Your task to perform on an android device: all mails in gmail Image 0: 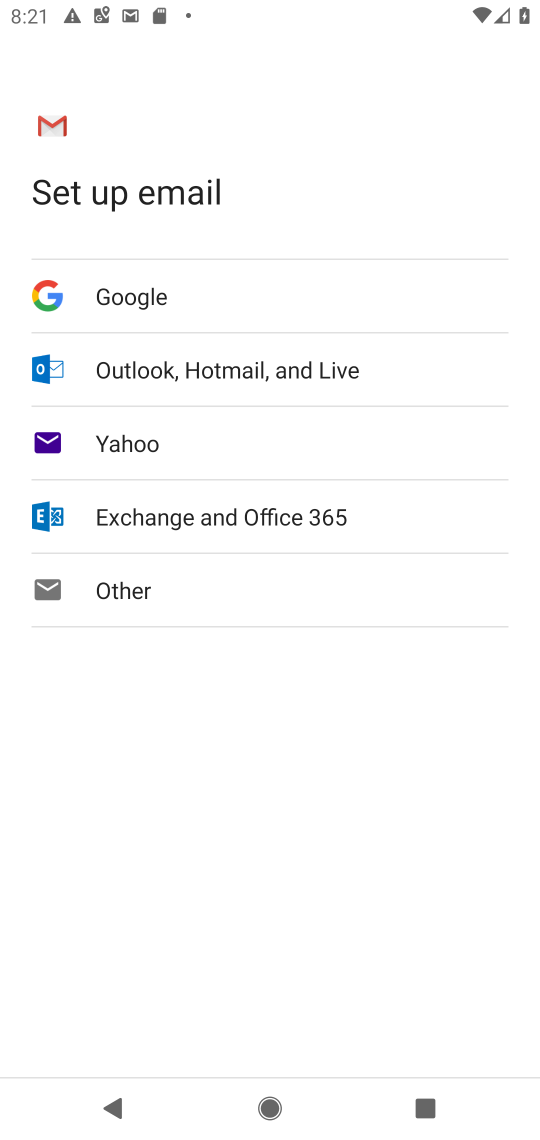
Step 0: press home button
Your task to perform on an android device: all mails in gmail Image 1: 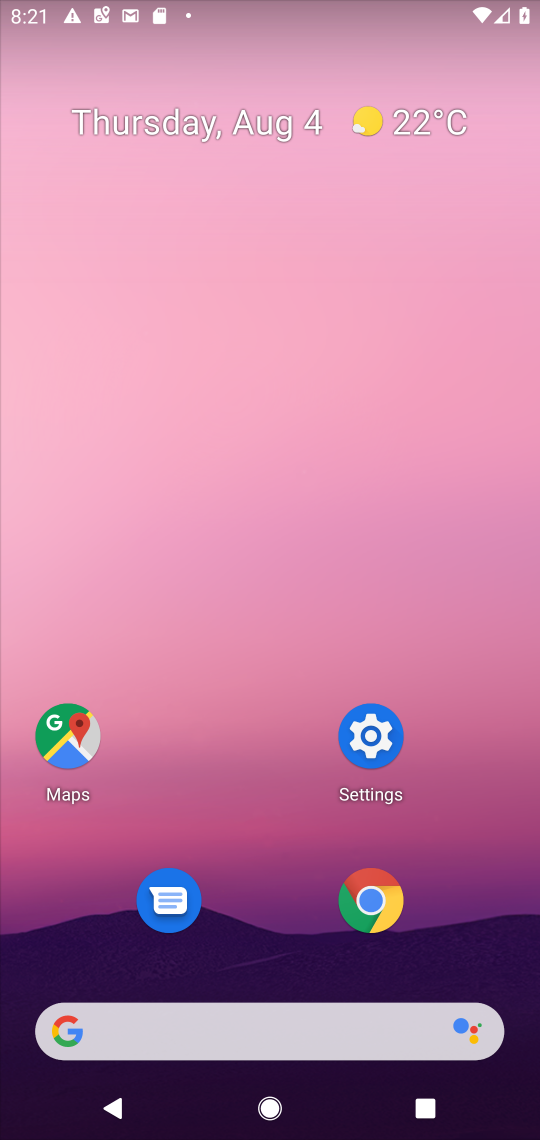
Step 1: drag from (266, 1037) to (478, 168)
Your task to perform on an android device: all mails in gmail Image 2: 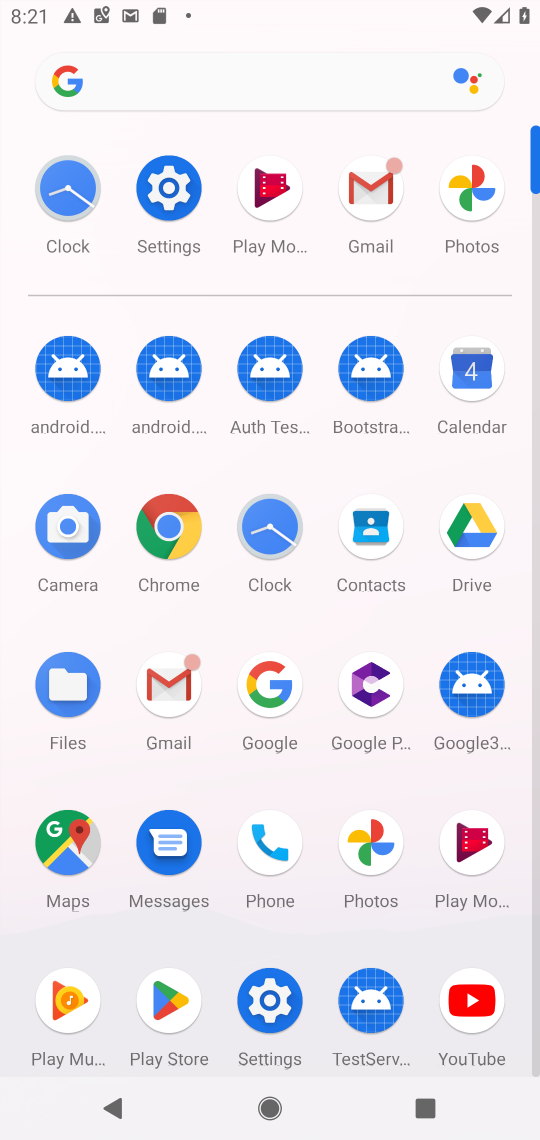
Step 2: click (375, 196)
Your task to perform on an android device: all mails in gmail Image 3: 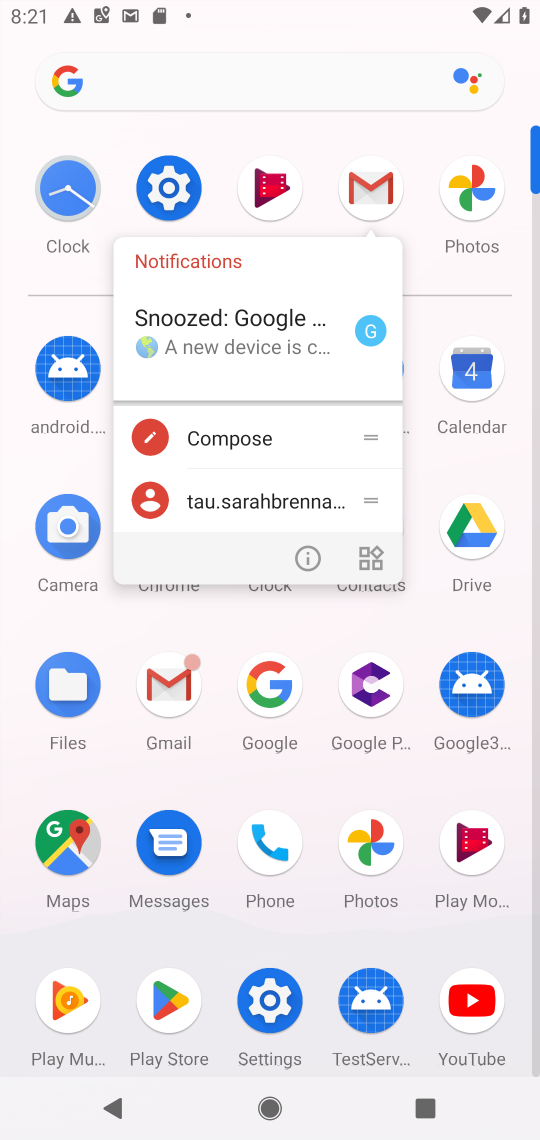
Step 3: click (371, 188)
Your task to perform on an android device: all mails in gmail Image 4: 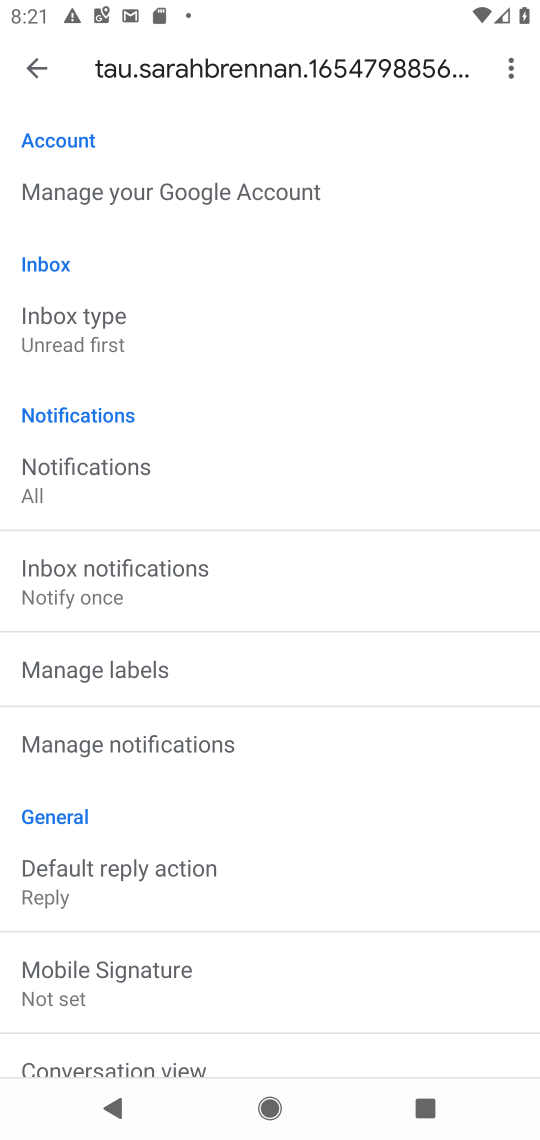
Step 4: click (26, 63)
Your task to perform on an android device: all mails in gmail Image 5: 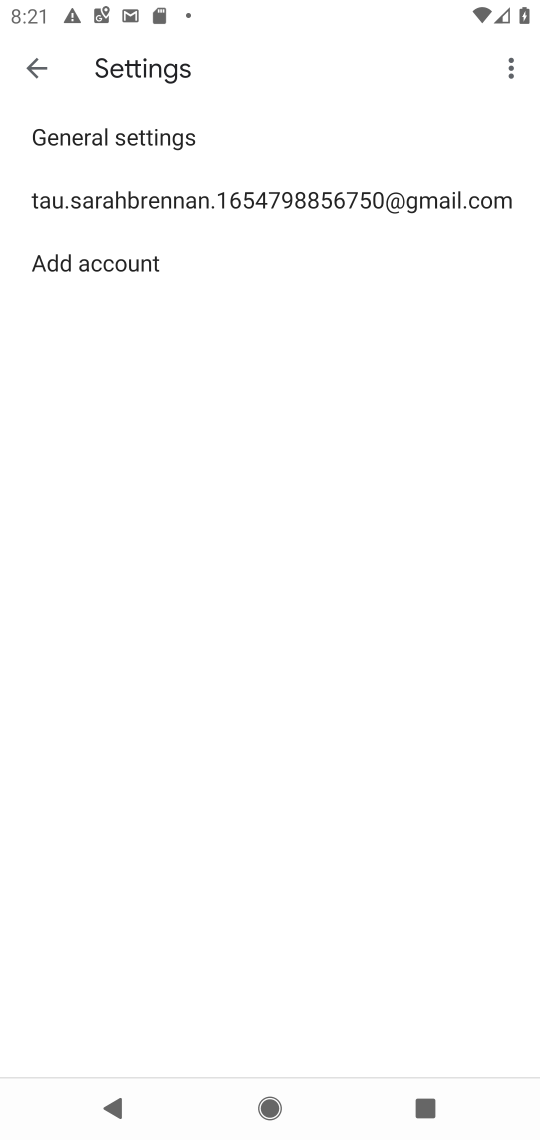
Step 5: click (43, 67)
Your task to perform on an android device: all mails in gmail Image 6: 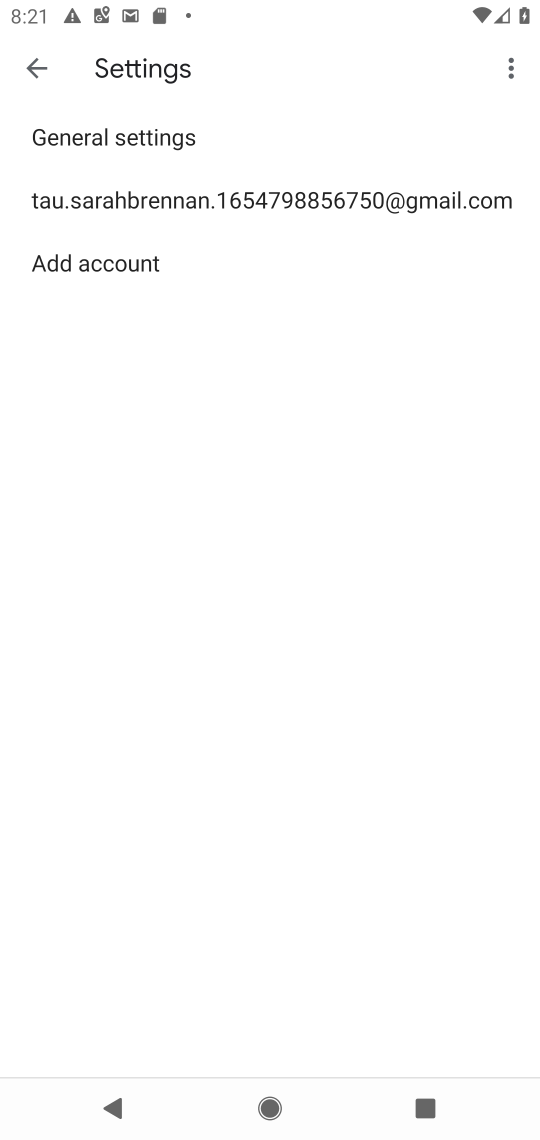
Step 6: click (29, 75)
Your task to perform on an android device: all mails in gmail Image 7: 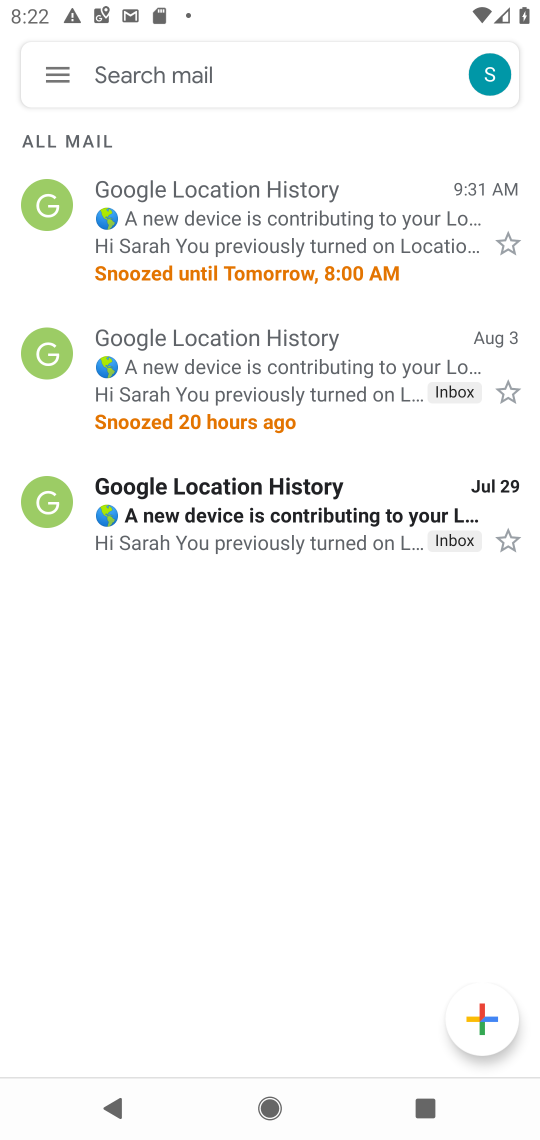
Step 7: task complete